Your task to perform on an android device: Show me recent news Image 0: 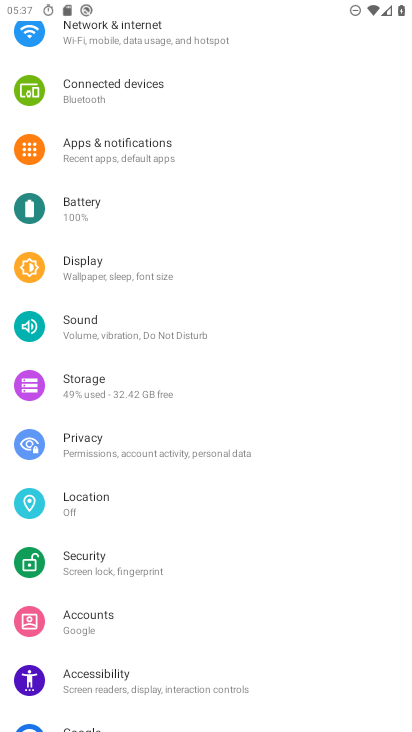
Step 0: press home button
Your task to perform on an android device: Show me recent news Image 1: 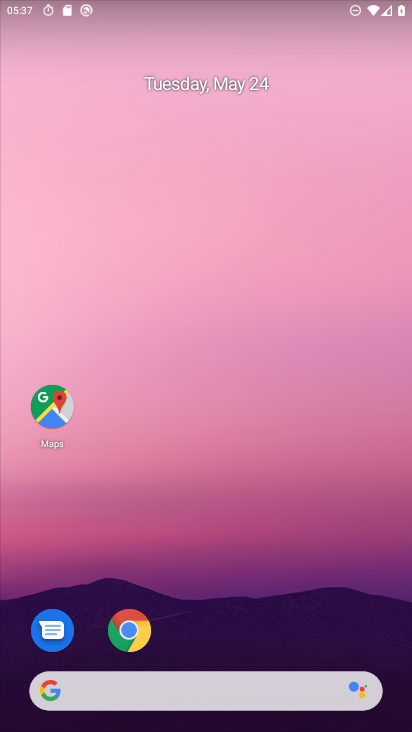
Step 1: click (113, 704)
Your task to perform on an android device: Show me recent news Image 2: 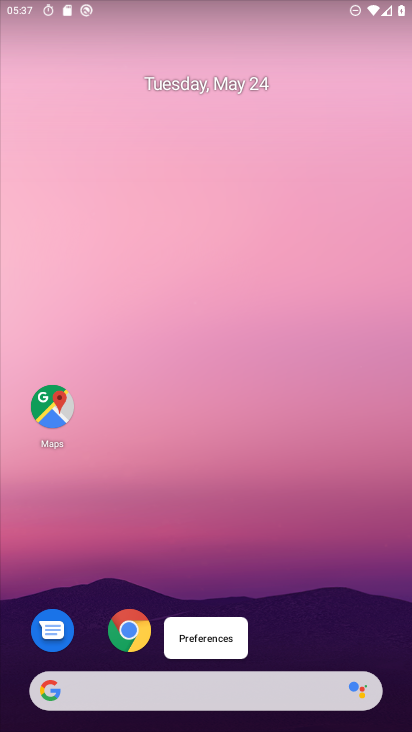
Step 2: click (113, 704)
Your task to perform on an android device: Show me recent news Image 3: 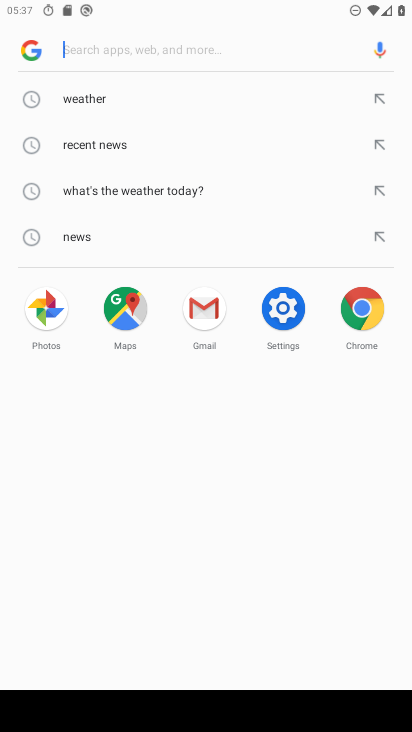
Step 3: click (146, 148)
Your task to perform on an android device: Show me recent news Image 4: 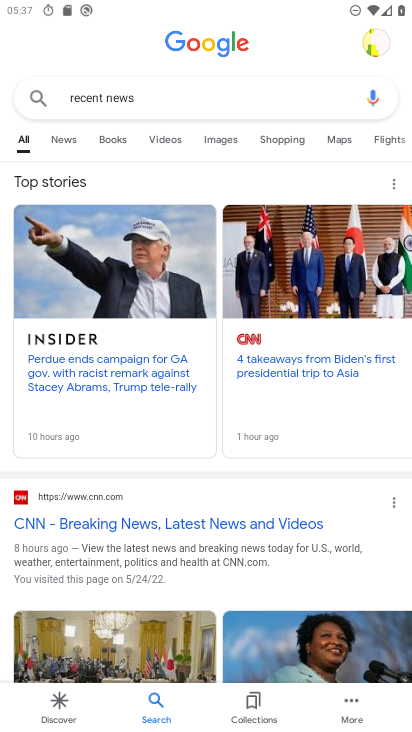
Step 4: task complete